Your task to perform on an android device: move a message to another label in the gmail app Image 0: 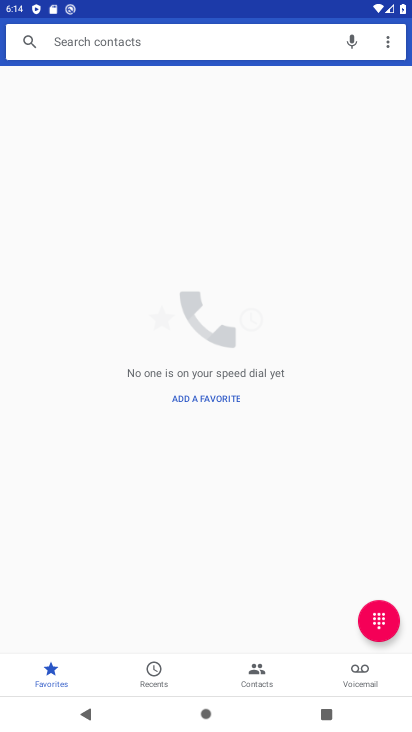
Step 0: press home button
Your task to perform on an android device: move a message to another label in the gmail app Image 1: 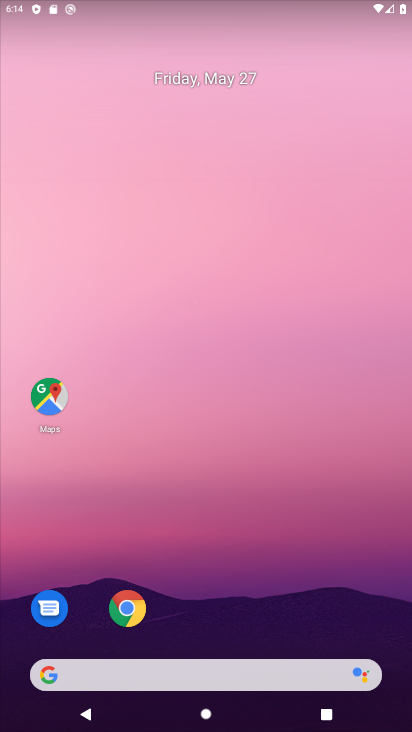
Step 1: drag from (223, 635) to (232, 110)
Your task to perform on an android device: move a message to another label in the gmail app Image 2: 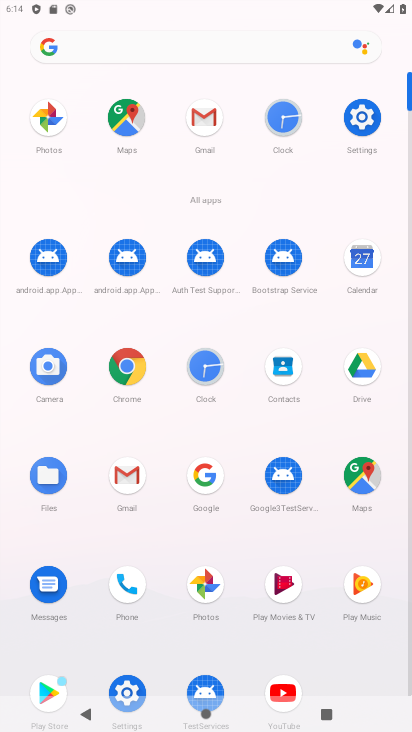
Step 2: click (206, 102)
Your task to perform on an android device: move a message to another label in the gmail app Image 3: 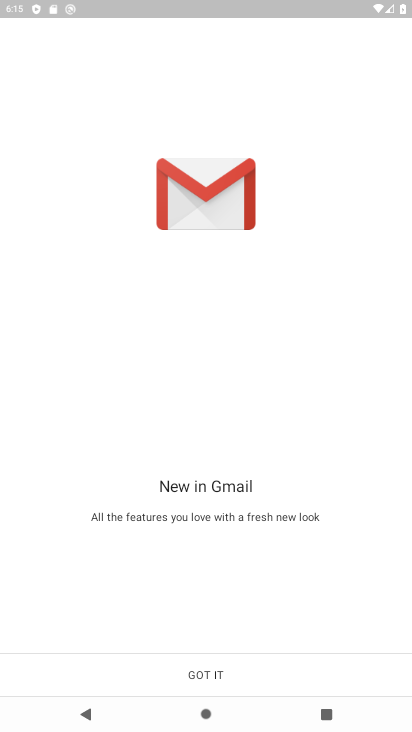
Step 3: click (200, 668)
Your task to perform on an android device: move a message to another label in the gmail app Image 4: 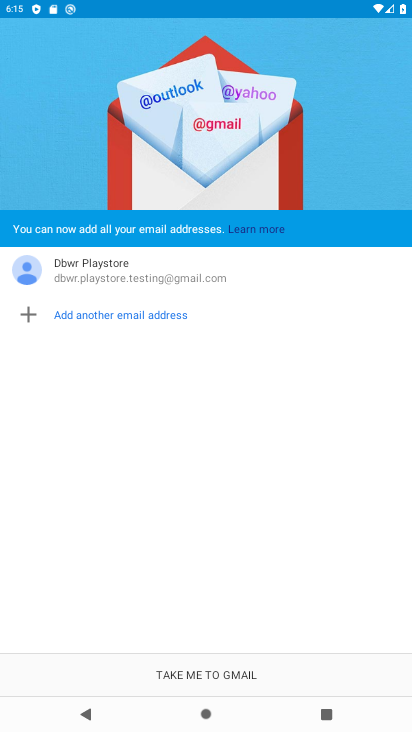
Step 4: click (209, 670)
Your task to perform on an android device: move a message to another label in the gmail app Image 5: 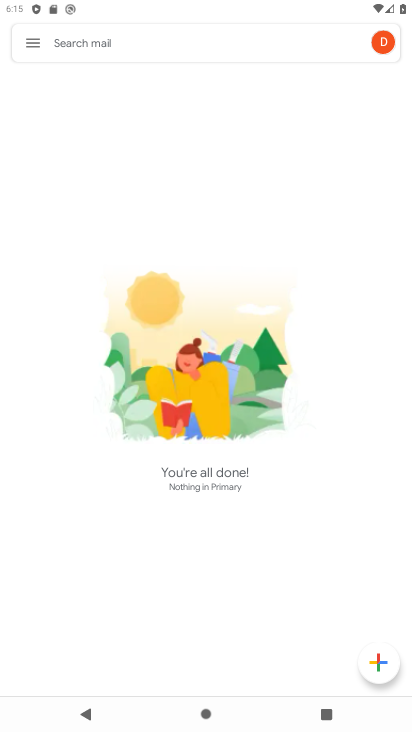
Step 5: task complete